Your task to perform on an android device: Turn off the flashlight Image 0: 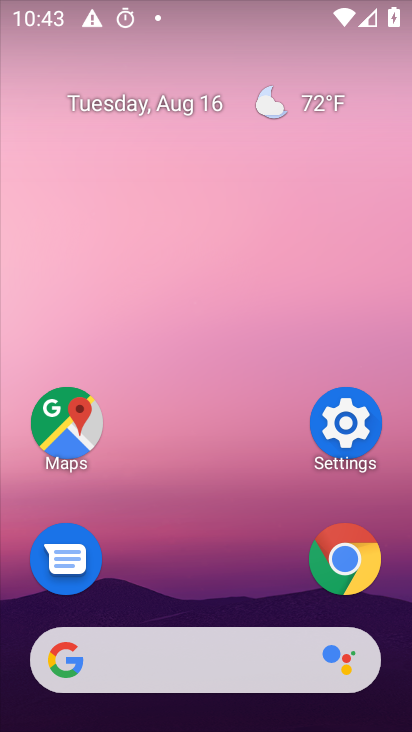
Step 0: drag from (221, 15) to (223, 454)
Your task to perform on an android device: Turn off the flashlight Image 1: 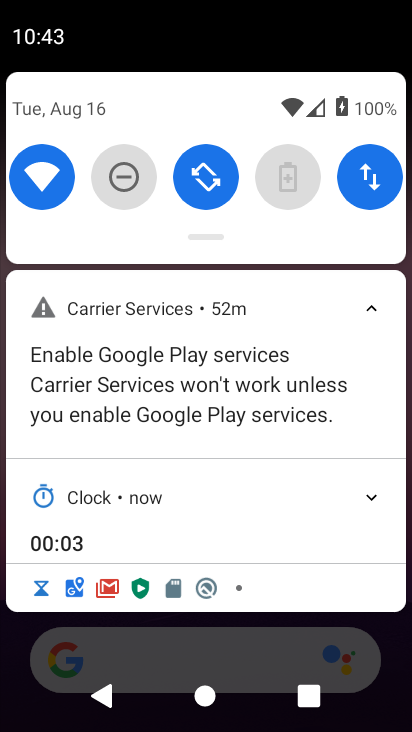
Step 1: task complete